Your task to perform on an android device: Go to internet settings Image 0: 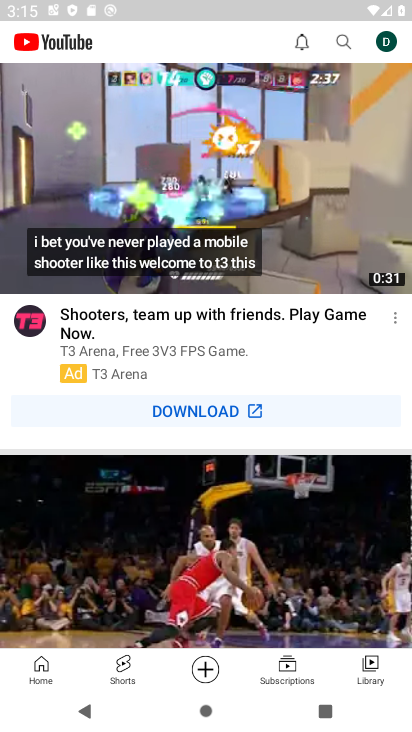
Step 0: press home button
Your task to perform on an android device: Go to internet settings Image 1: 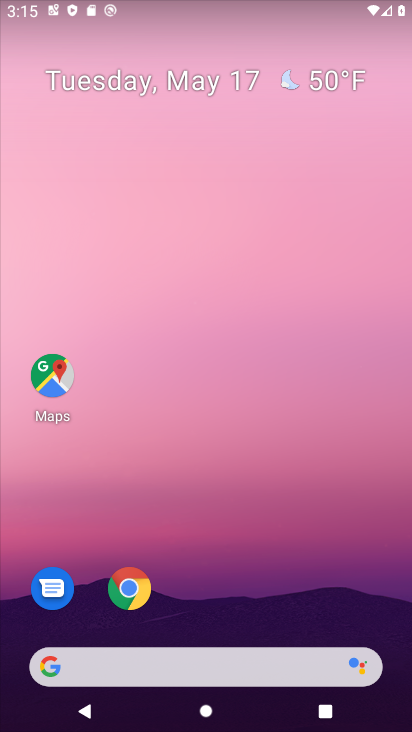
Step 1: drag from (185, 534) to (292, 122)
Your task to perform on an android device: Go to internet settings Image 2: 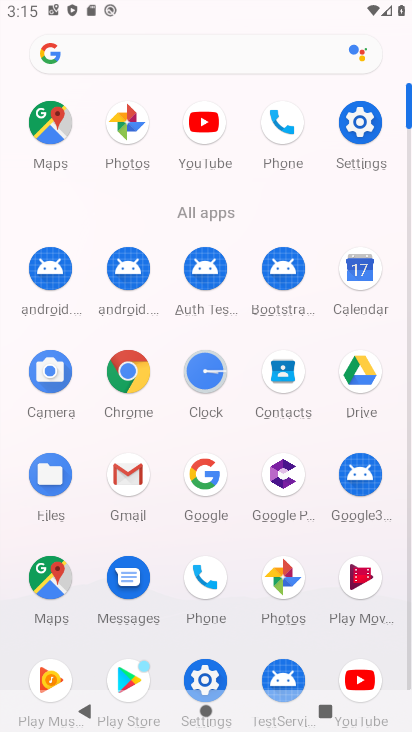
Step 2: drag from (226, 520) to (270, 358)
Your task to perform on an android device: Go to internet settings Image 3: 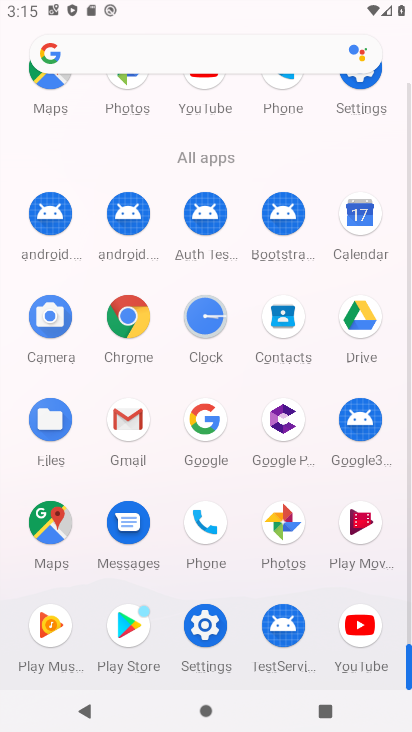
Step 3: click (211, 635)
Your task to perform on an android device: Go to internet settings Image 4: 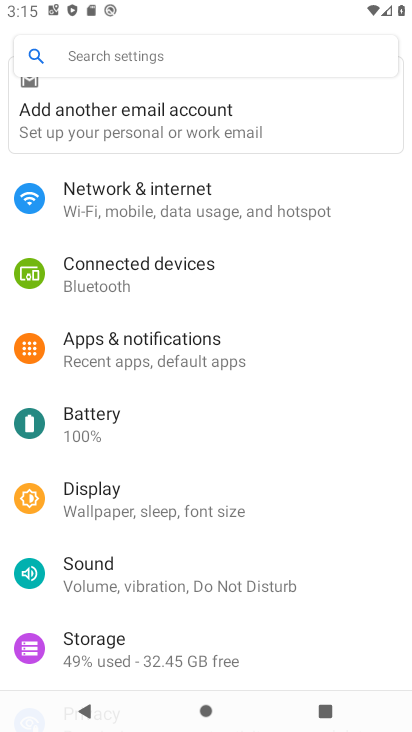
Step 4: click (239, 200)
Your task to perform on an android device: Go to internet settings Image 5: 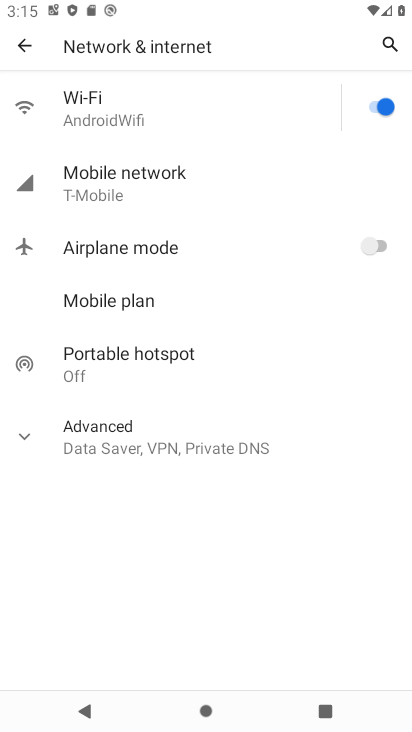
Step 5: click (252, 190)
Your task to perform on an android device: Go to internet settings Image 6: 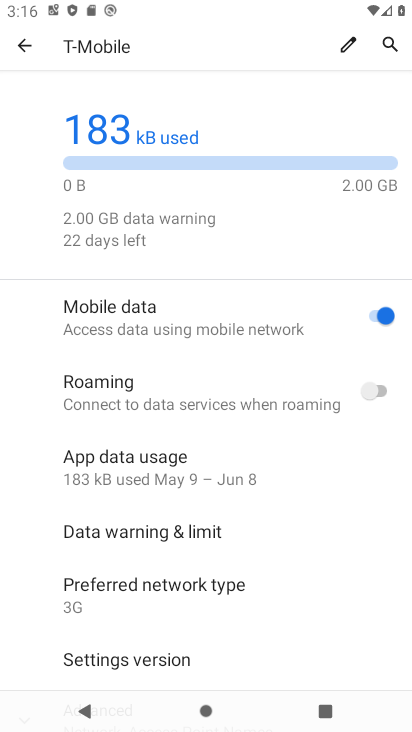
Step 6: task complete